Your task to perform on an android device: check google app version Image 0: 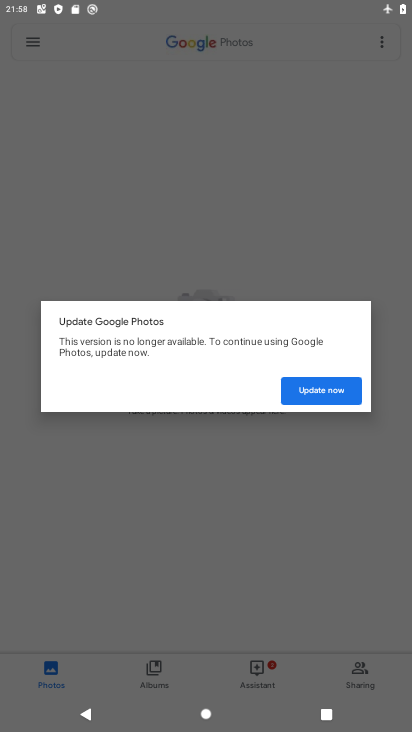
Step 0: click (244, 579)
Your task to perform on an android device: check google app version Image 1: 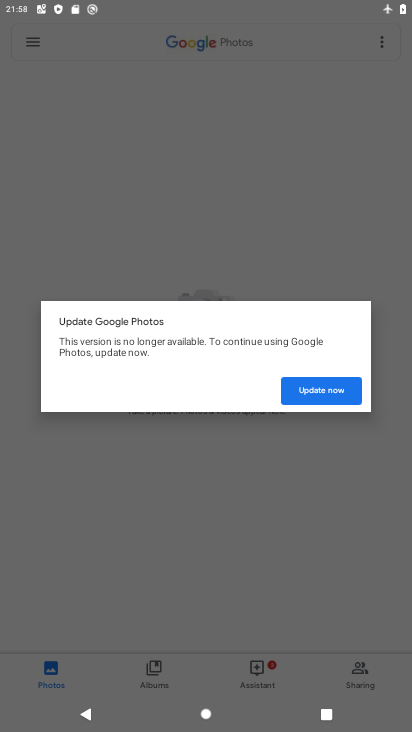
Step 1: press home button
Your task to perform on an android device: check google app version Image 2: 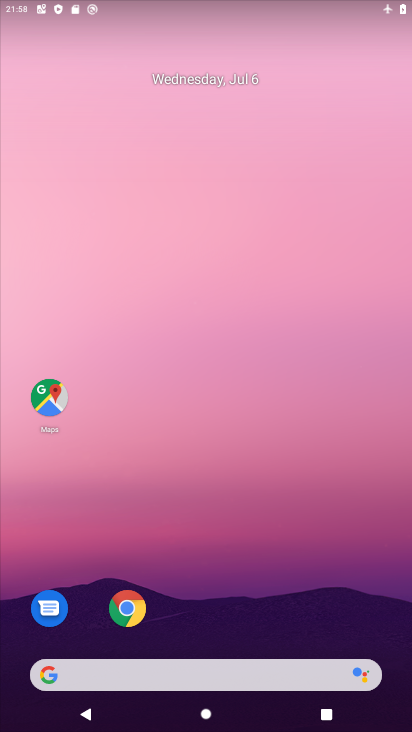
Step 2: drag from (216, 562) to (169, 154)
Your task to perform on an android device: check google app version Image 3: 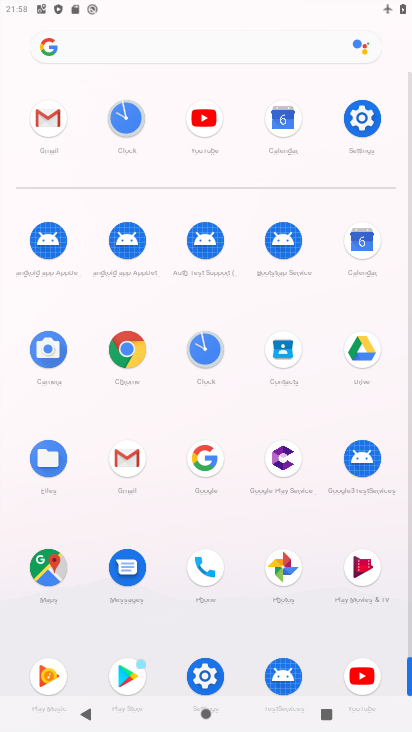
Step 3: click (202, 466)
Your task to perform on an android device: check google app version Image 4: 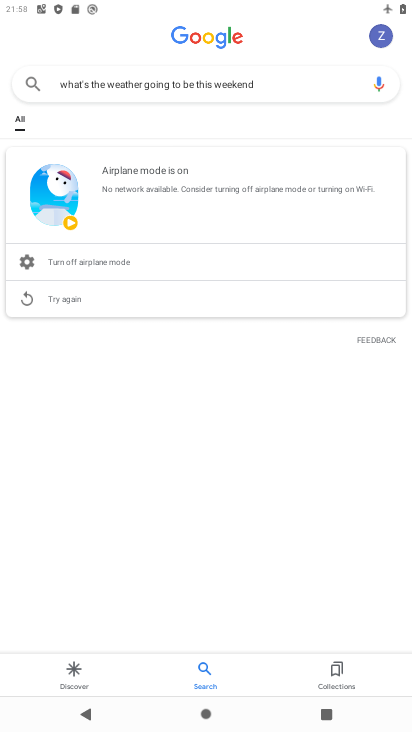
Step 4: click (385, 31)
Your task to perform on an android device: check google app version Image 5: 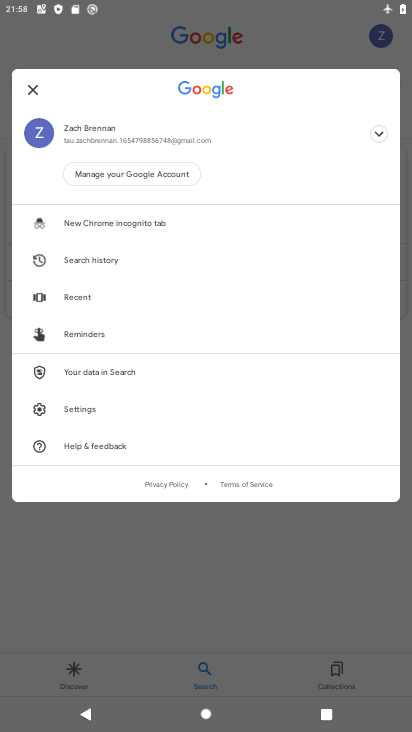
Step 5: click (85, 408)
Your task to perform on an android device: check google app version Image 6: 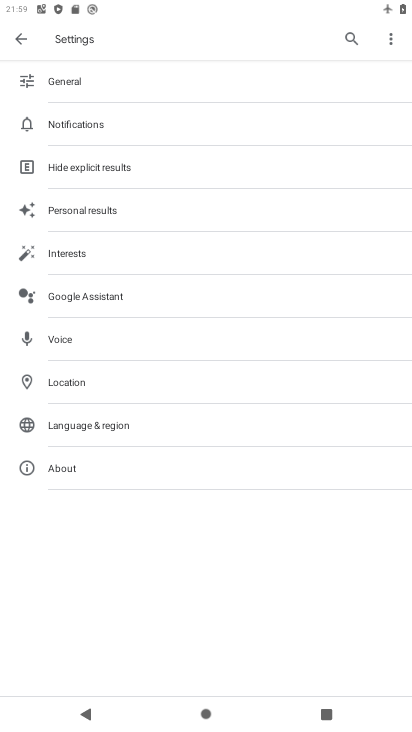
Step 6: click (59, 465)
Your task to perform on an android device: check google app version Image 7: 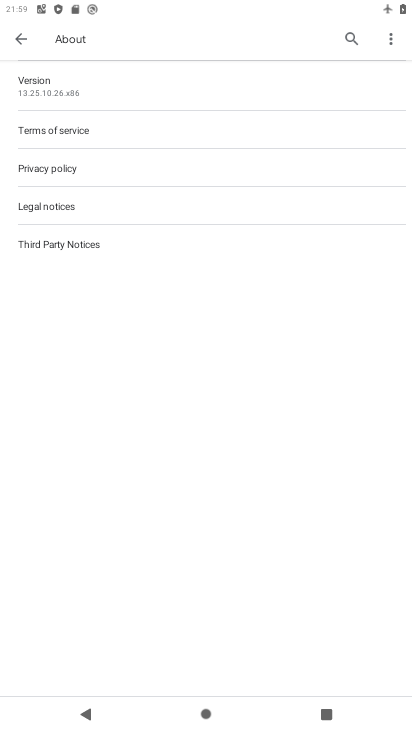
Step 7: task complete